Your task to perform on an android device: open app "YouTube Kids" Image 0: 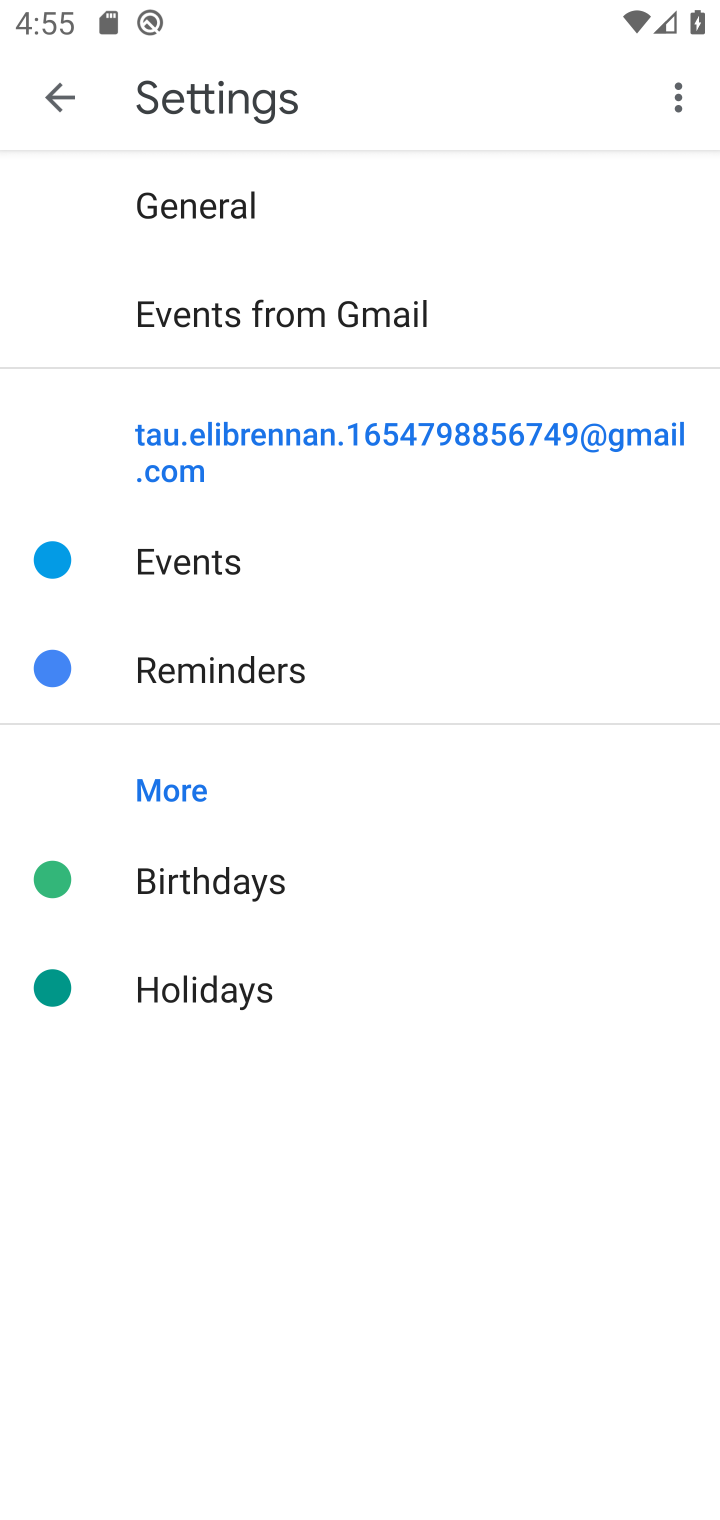
Step 0: click (582, 90)
Your task to perform on an android device: open app "YouTube Kids" Image 1: 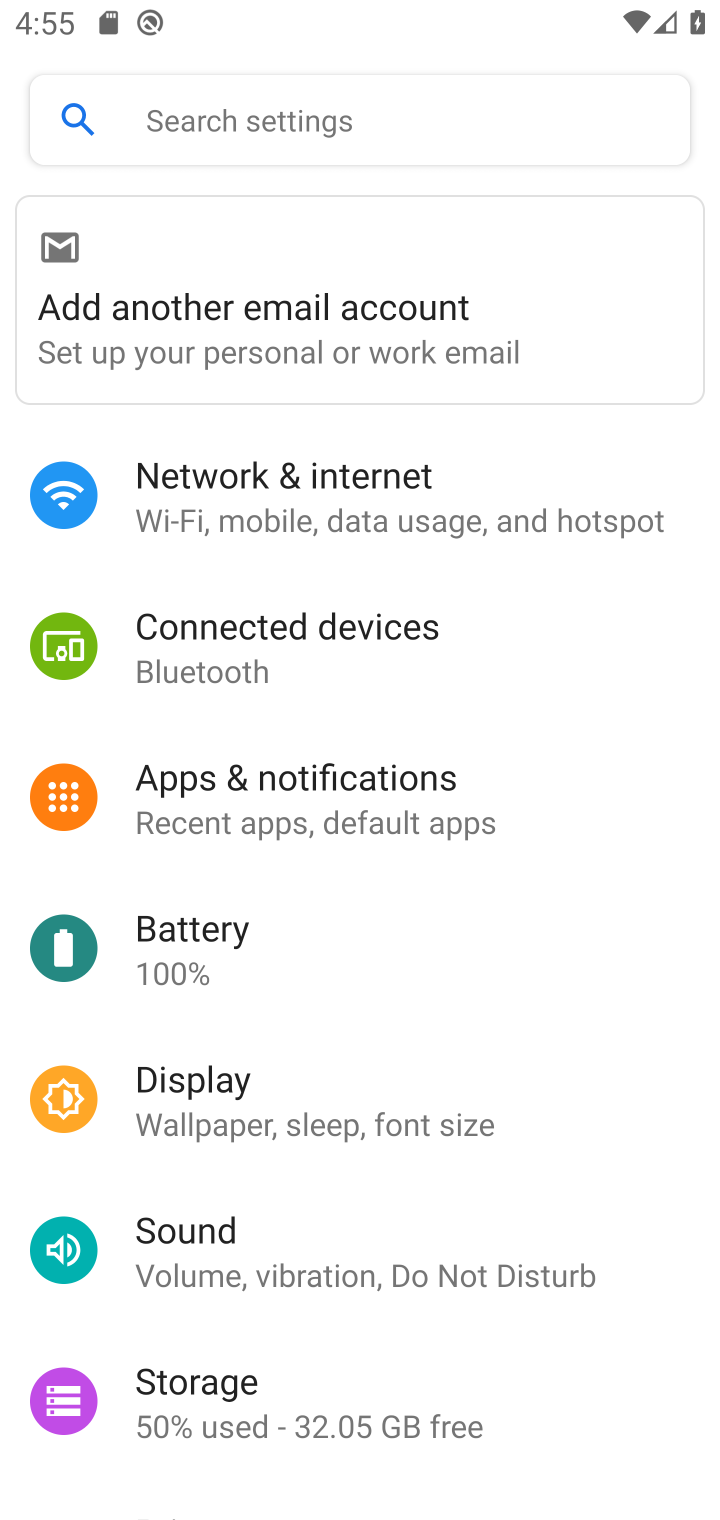
Step 1: click (593, 90)
Your task to perform on an android device: open app "YouTube Kids" Image 2: 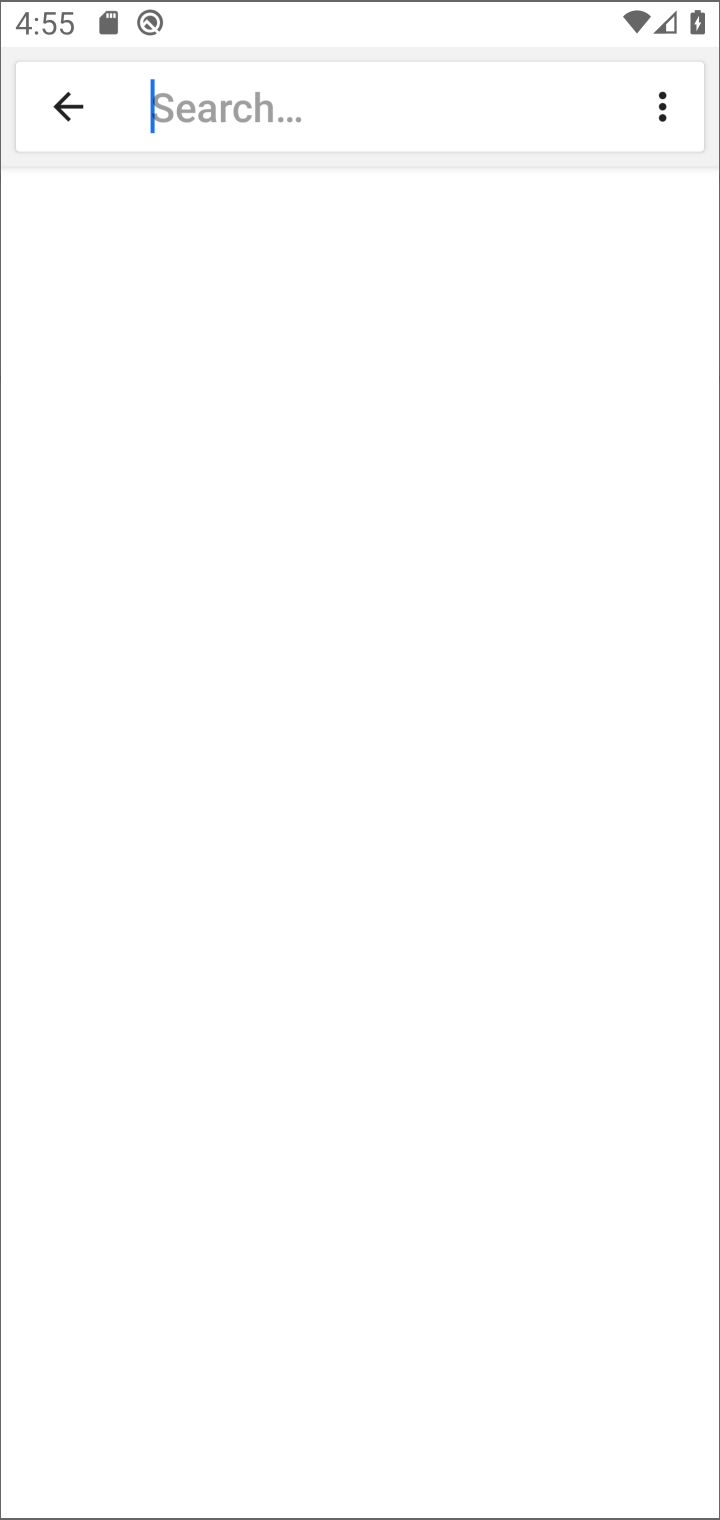
Step 2: press home button
Your task to perform on an android device: open app "YouTube Kids" Image 3: 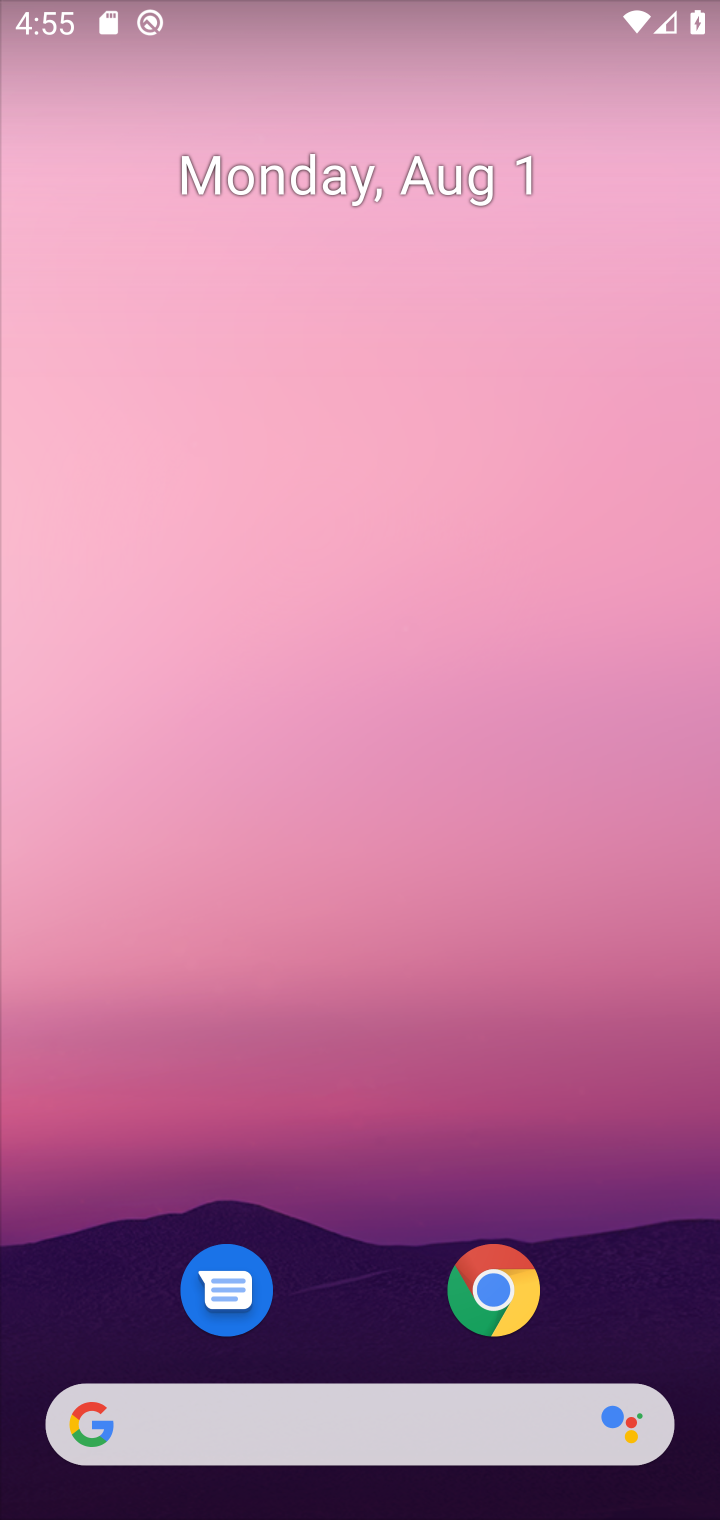
Step 3: press home button
Your task to perform on an android device: open app "YouTube Kids" Image 4: 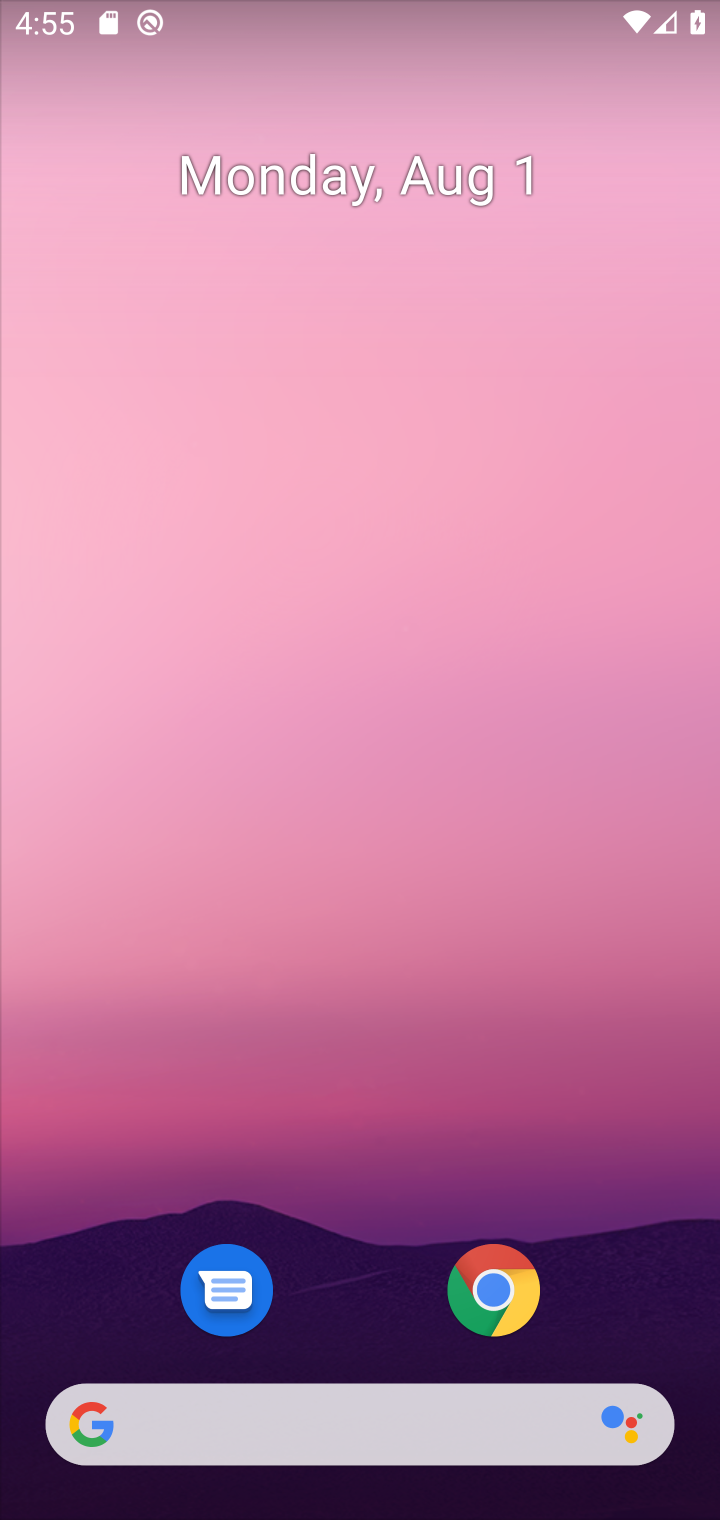
Step 4: drag from (475, 1172) to (346, 389)
Your task to perform on an android device: open app "YouTube Kids" Image 5: 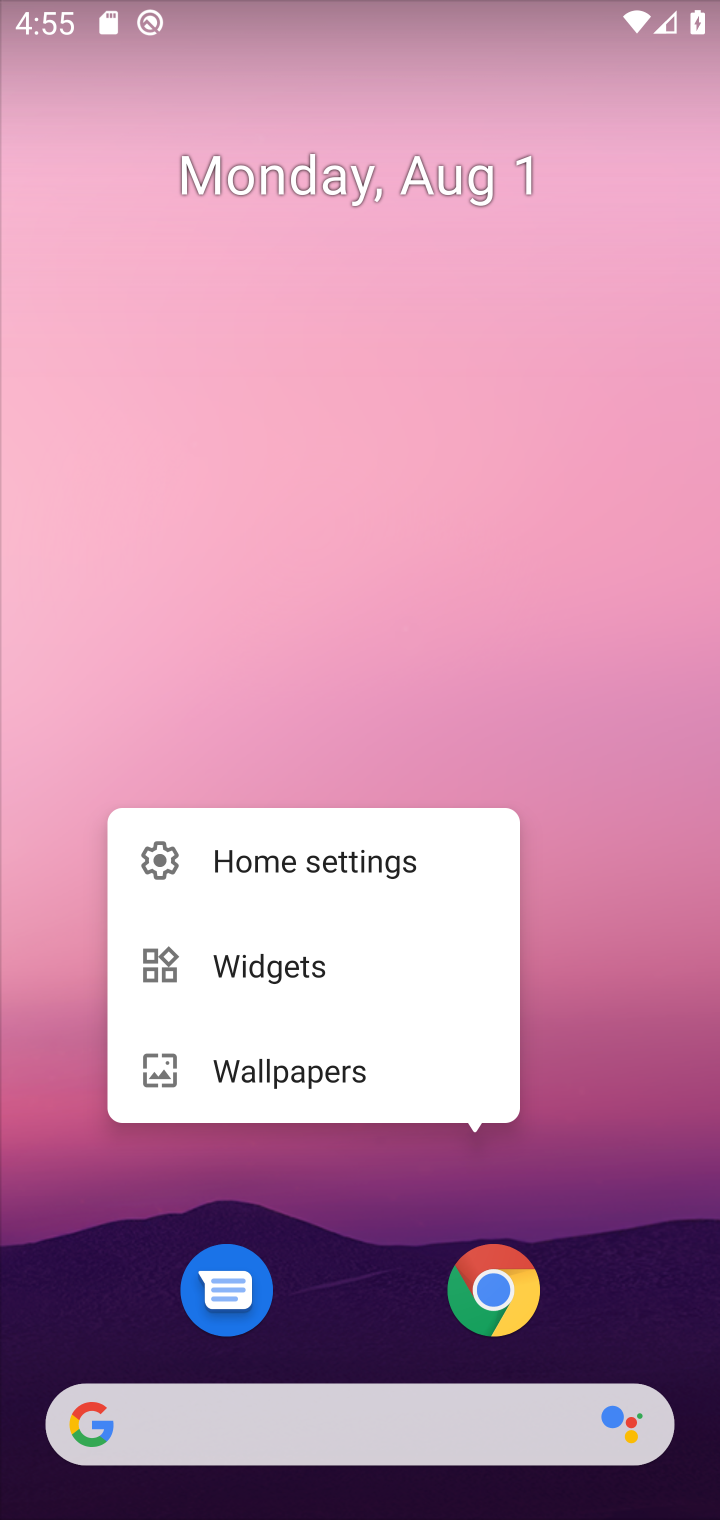
Step 5: click (413, 451)
Your task to perform on an android device: open app "YouTube Kids" Image 6: 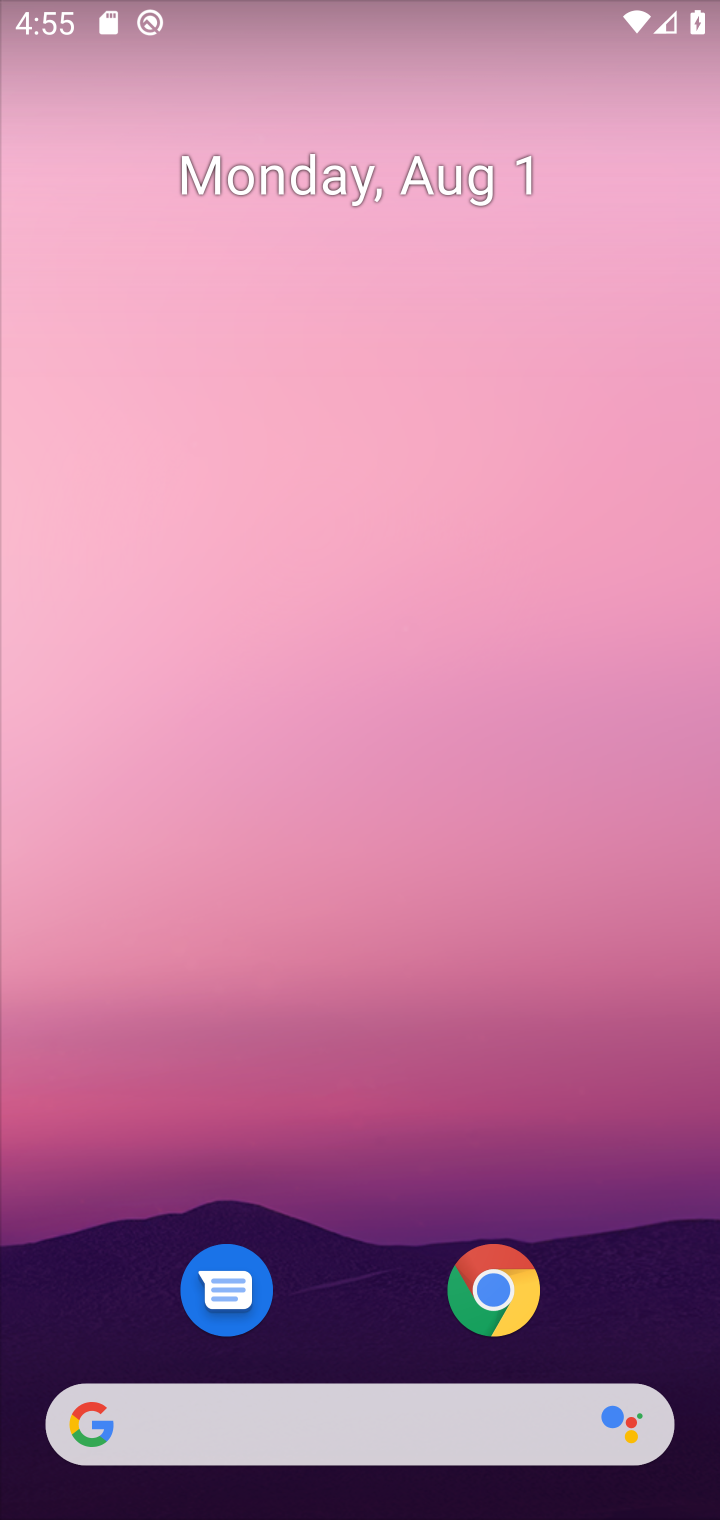
Step 6: drag from (413, 451) to (420, 7)
Your task to perform on an android device: open app "YouTube Kids" Image 7: 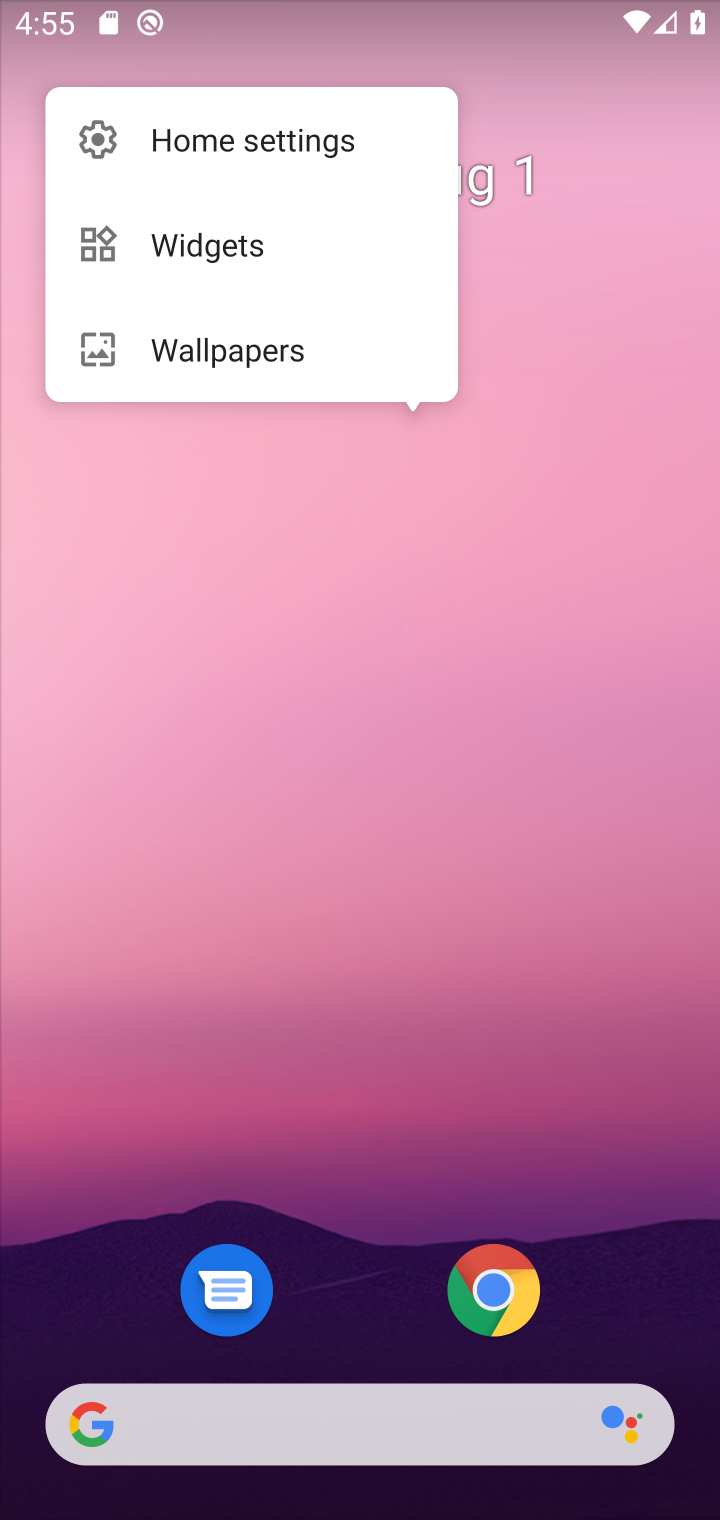
Step 7: click (394, 608)
Your task to perform on an android device: open app "YouTube Kids" Image 8: 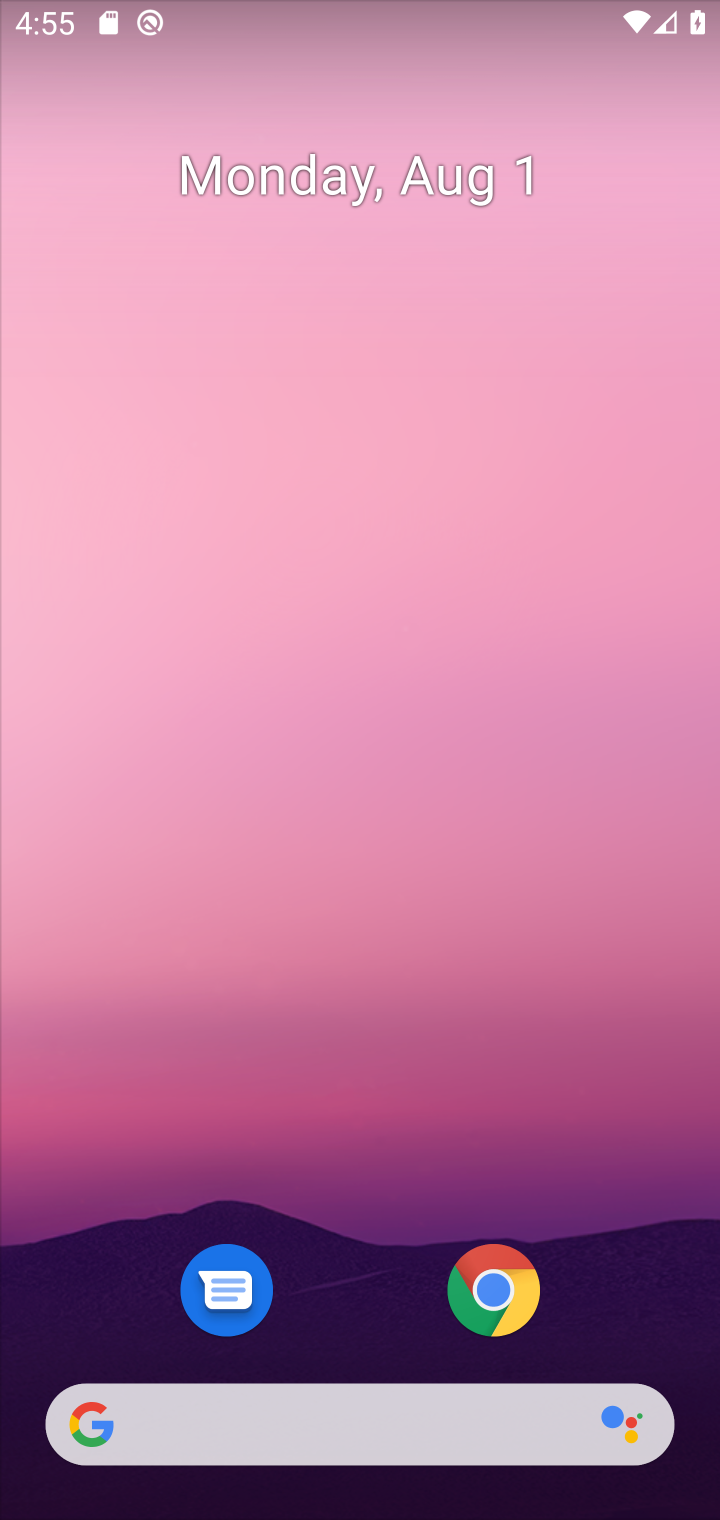
Step 8: drag from (356, 1376) to (522, 82)
Your task to perform on an android device: open app "YouTube Kids" Image 9: 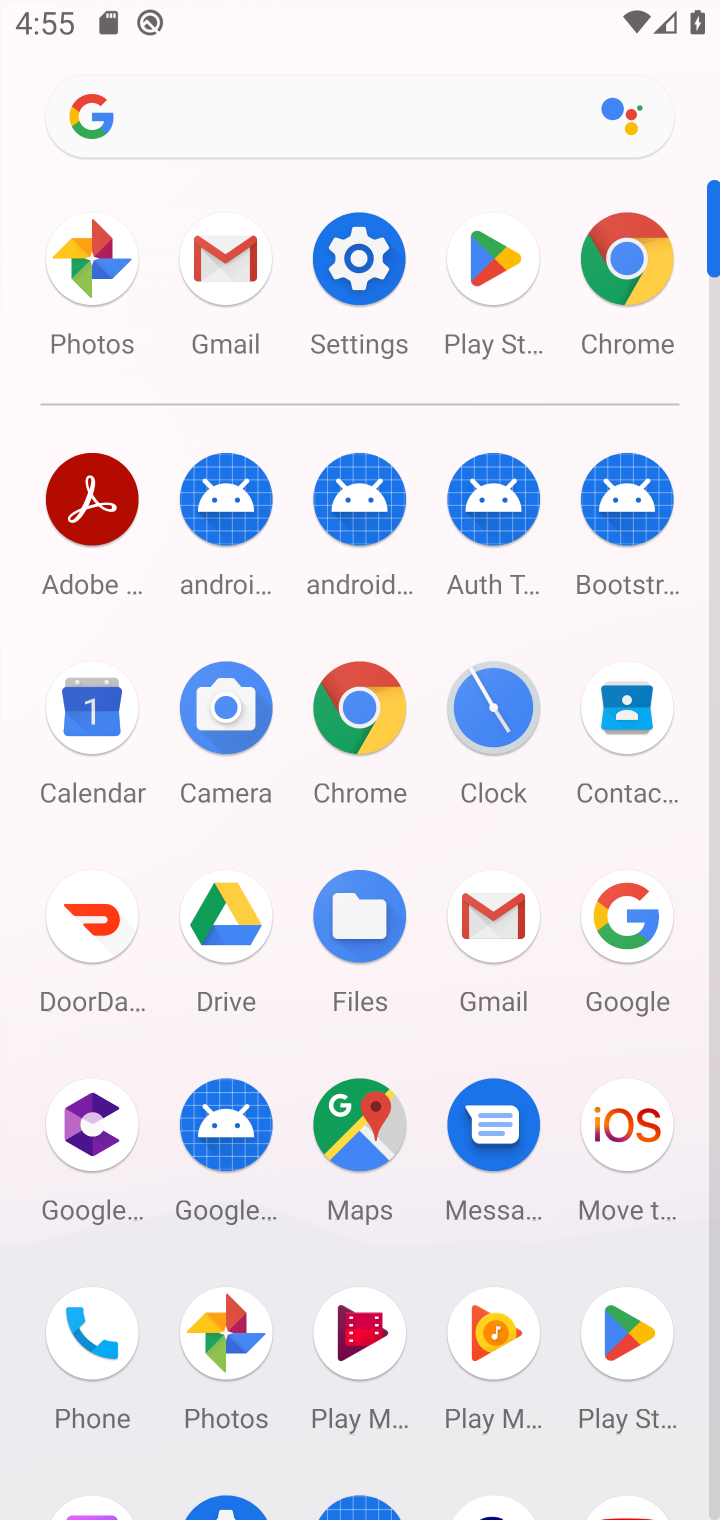
Step 9: drag from (542, 1396) to (538, 613)
Your task to perform on an android device: open app "YouTube Kids" Image 10: 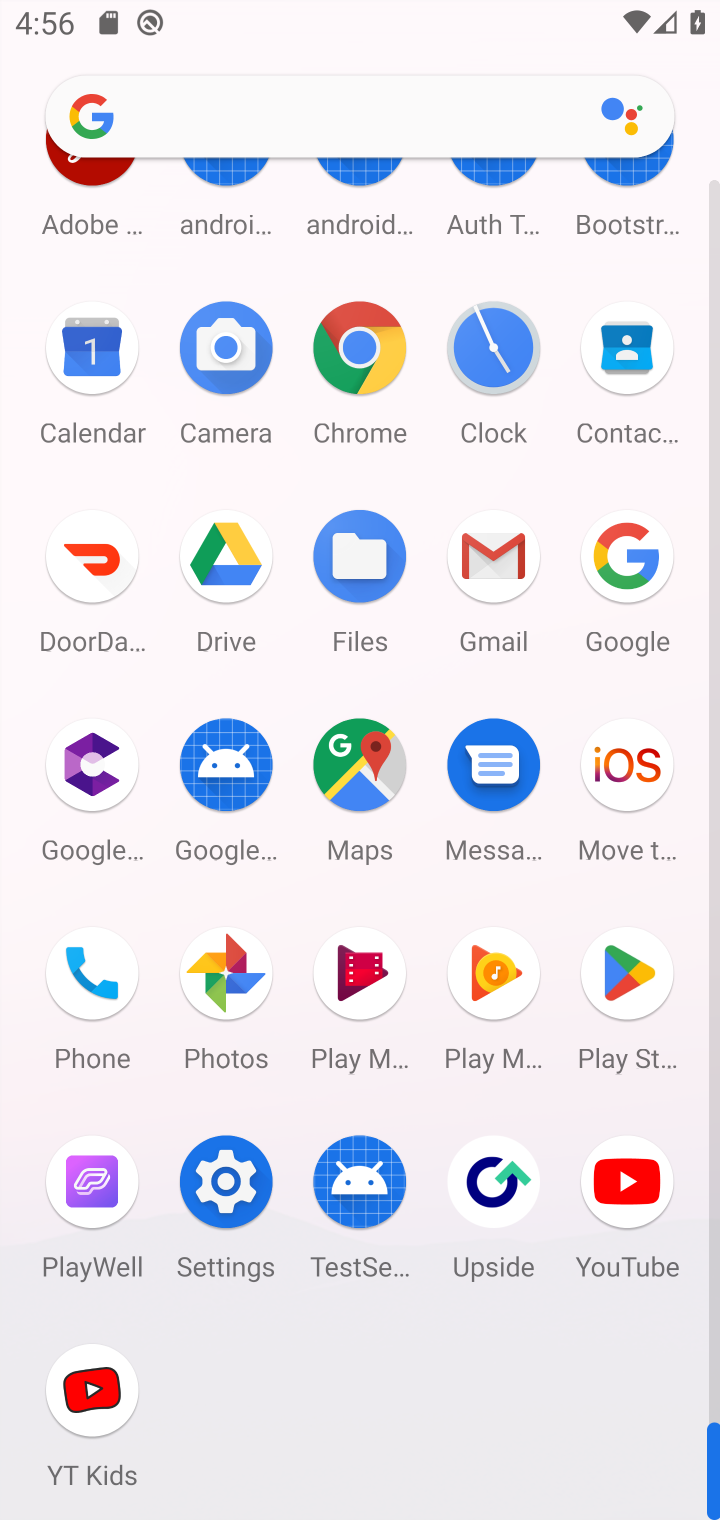
Step 10: click (644, 985)
Your task to perform on an android device: open app "YouTube Kids" Image 11: 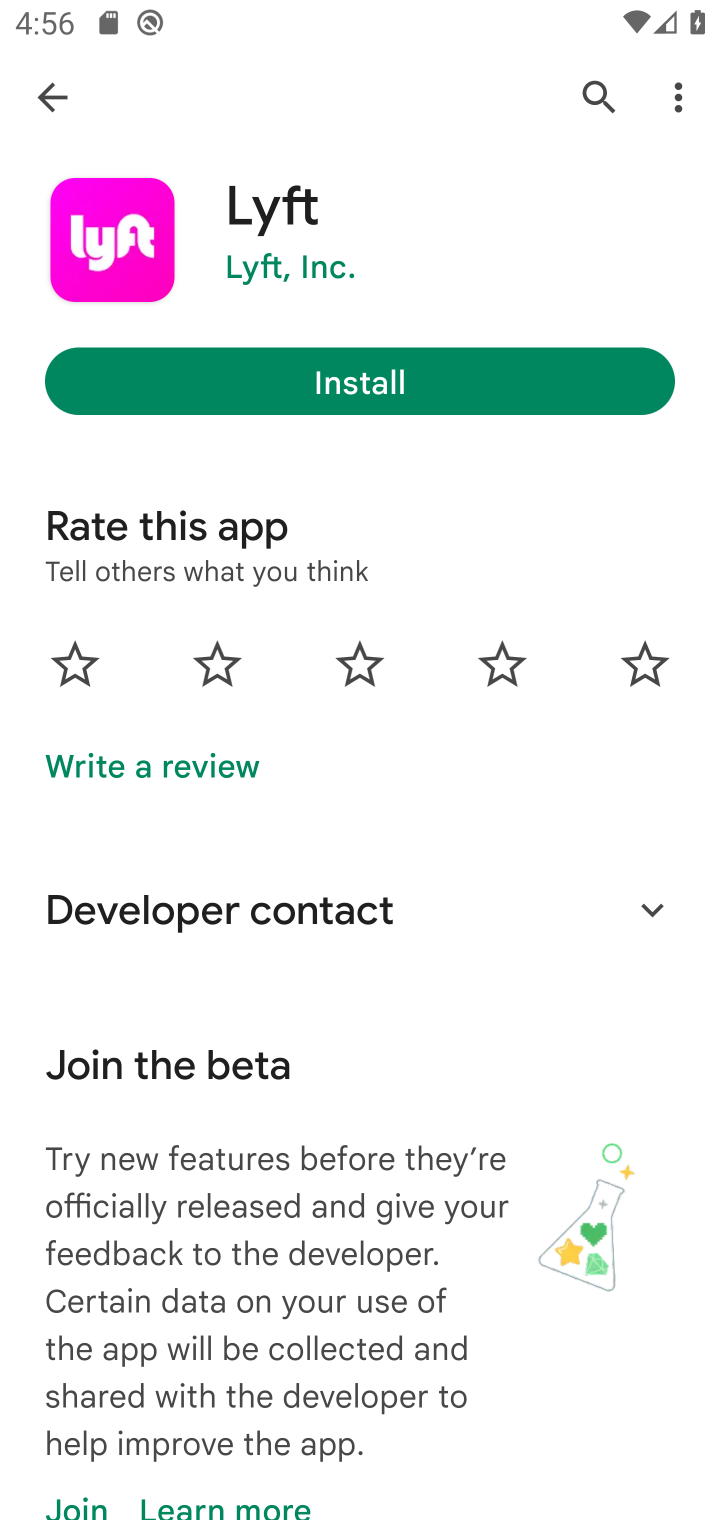
Step 11: click (588, 96)
Your task to perform on an android device: open app "YouTube Kids" Image 12: 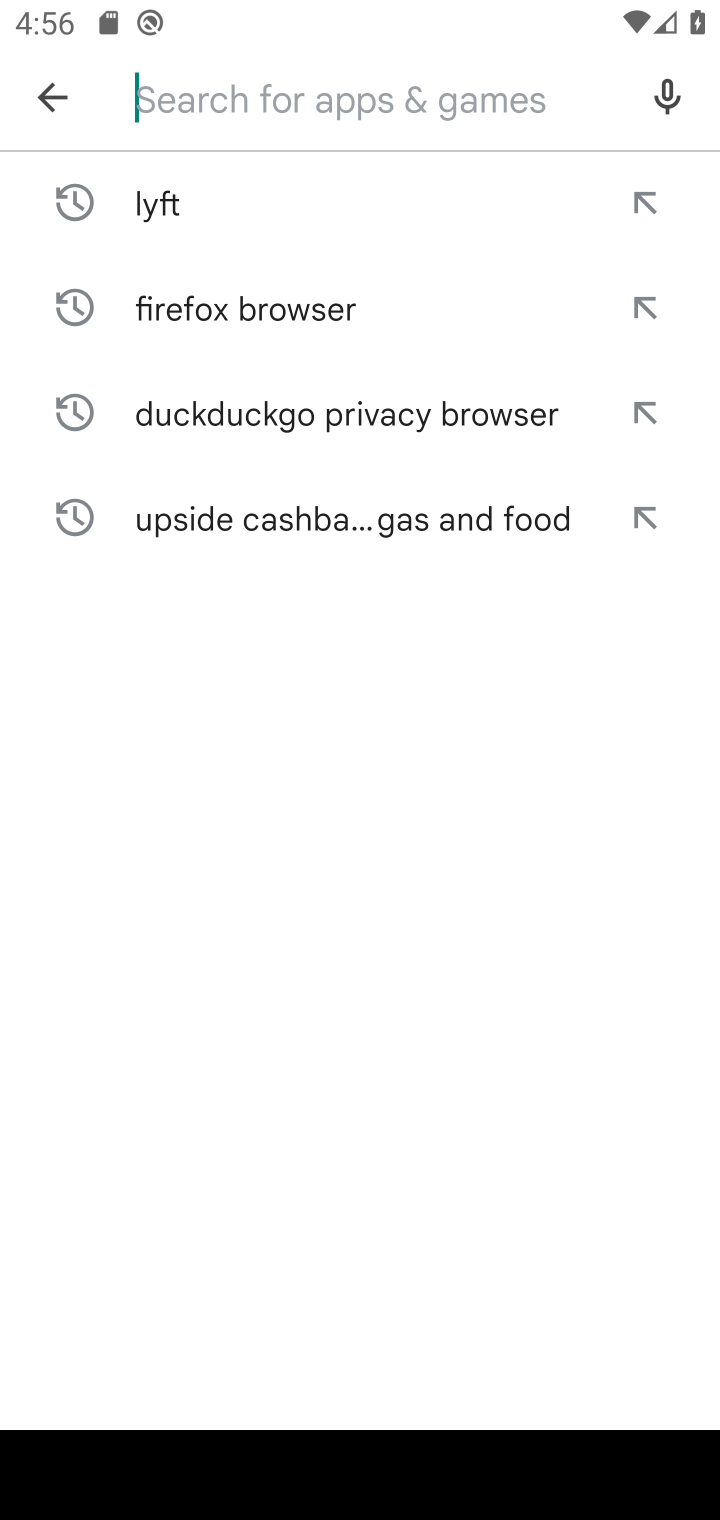
Step 12: type "youtube kids"
Your task to perform on an android device: open app "YouTube Kids" Image 13: 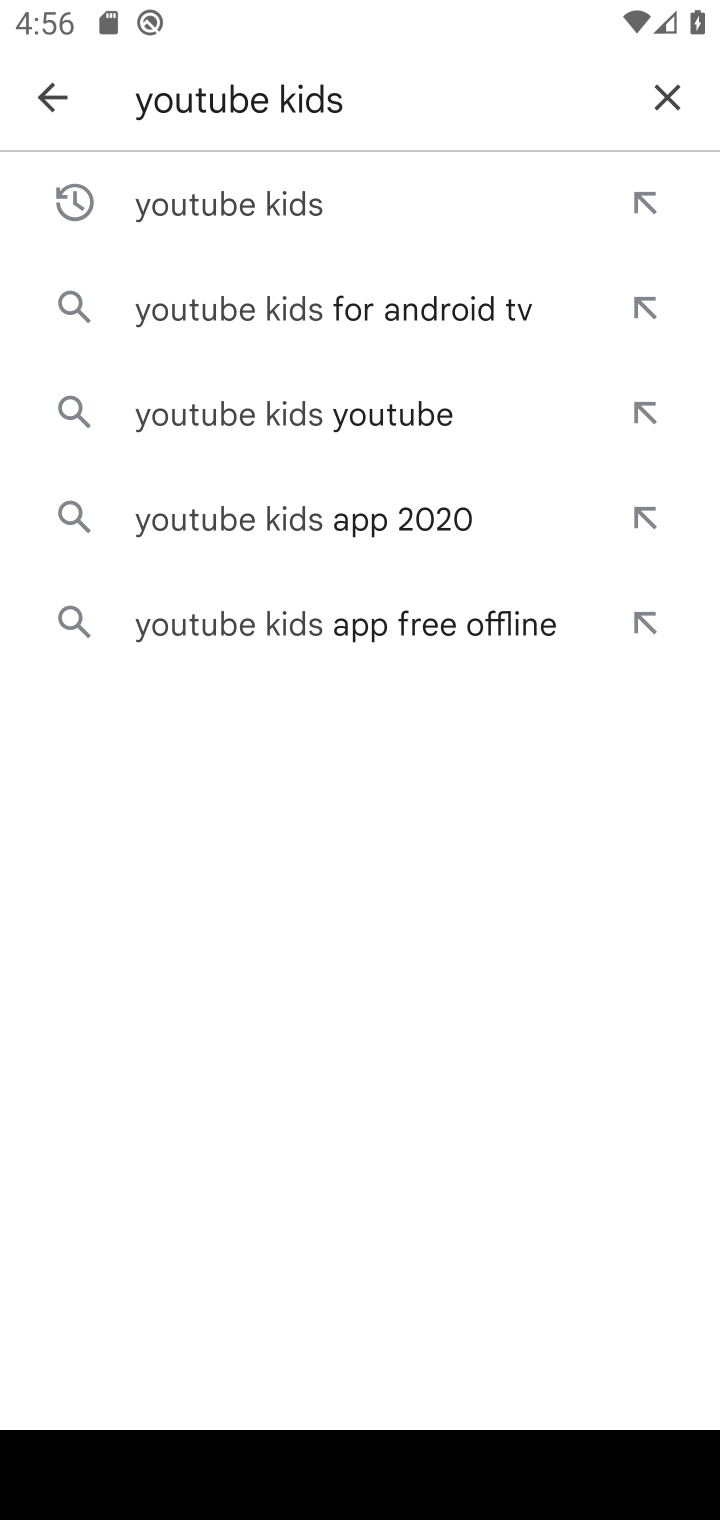
Step 13: click (219, 200)
Your task to perform on an android device: open app "YouTube Kids" Image 14: 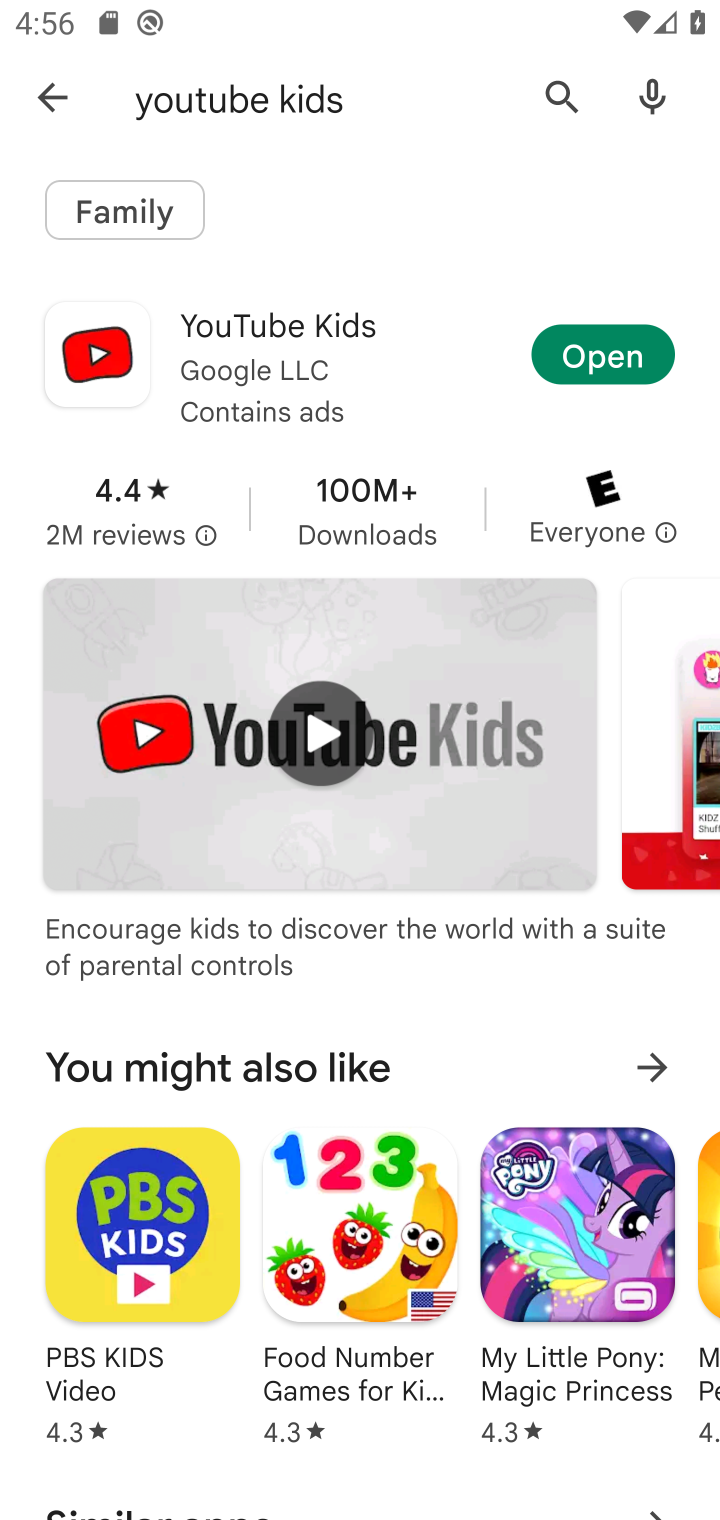
Step 14: click (593, 348)
Your task to perform on an android device: open app "YouTube Kids" Image 15: 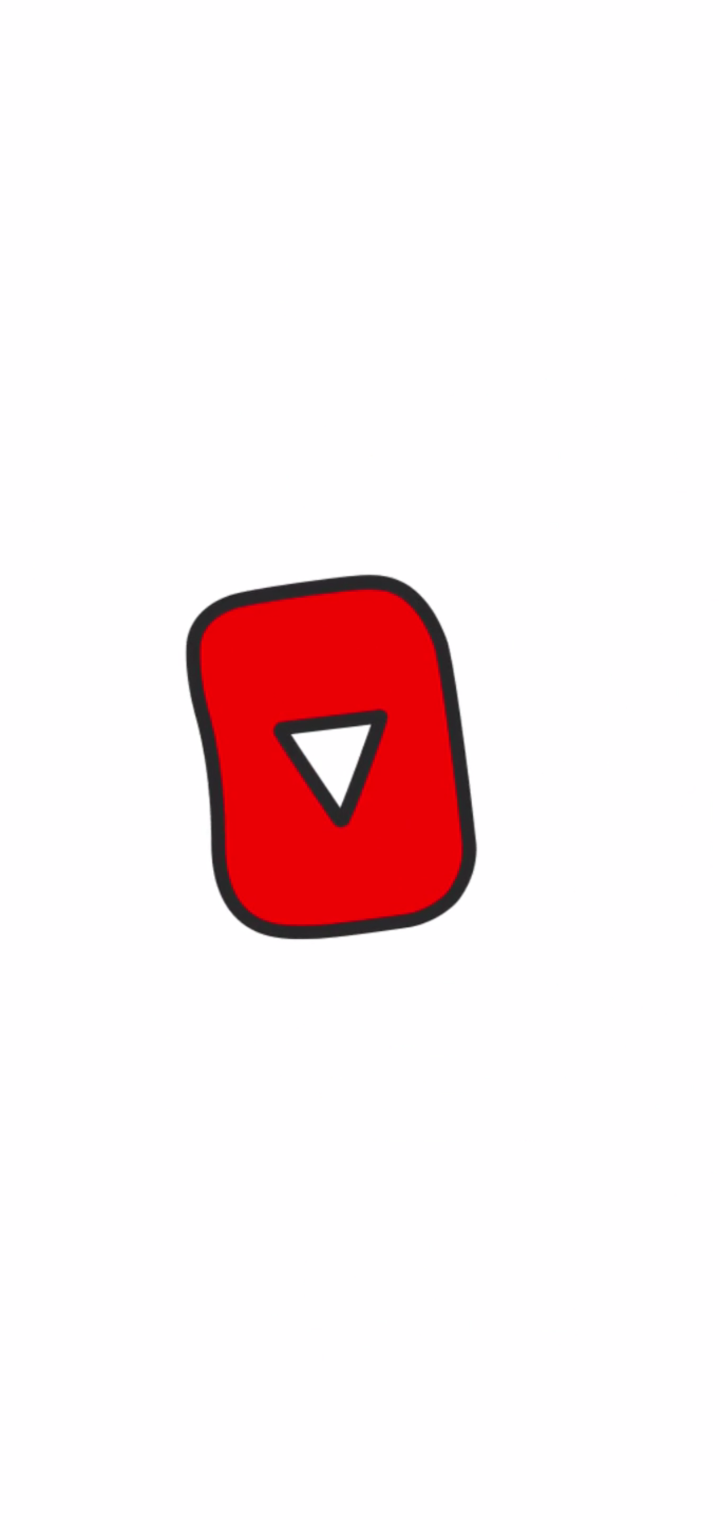
Step 15: task complete